Your task to perform on an android device: show emergency info Image 0: 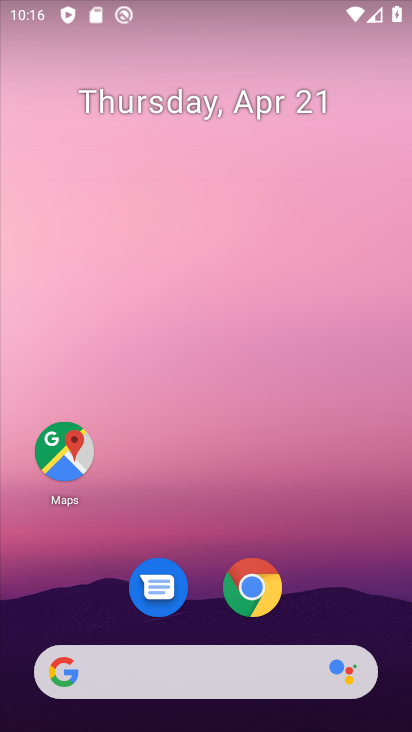
Step 0: drag from (217, 676) to (163, 97)
Your task to perform on an android device: show emergency info Image 1: 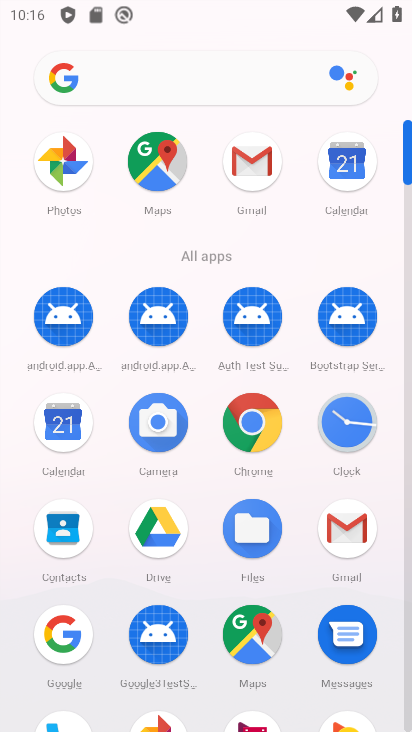
Step 1: drag from (186, 556) to (155, 21)
Your task to perform on an android device: show emergency info Image 2: 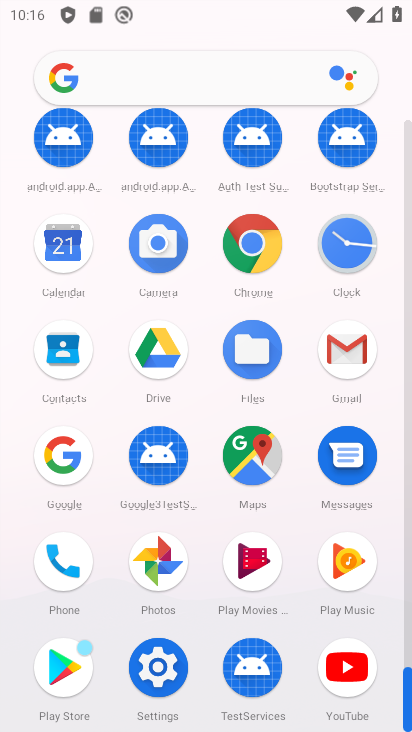
Step 2: click (154, 663)
Your task to perform on an android device: show emergency info Image 3: 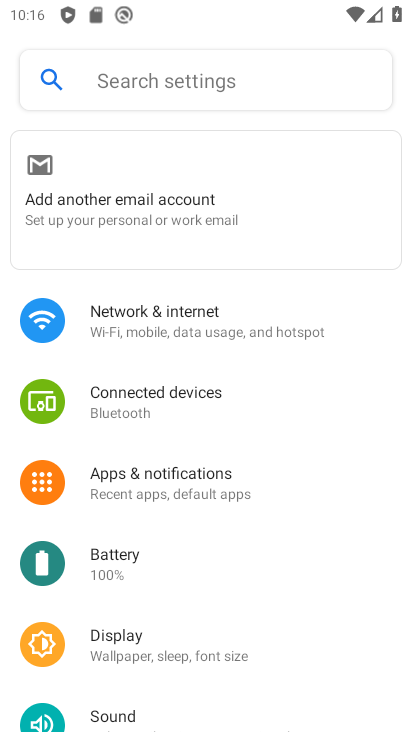
Step 3: drag from (187, 589) to (147, 36)
Your task to perform on an android device: show emergency info Image 4: 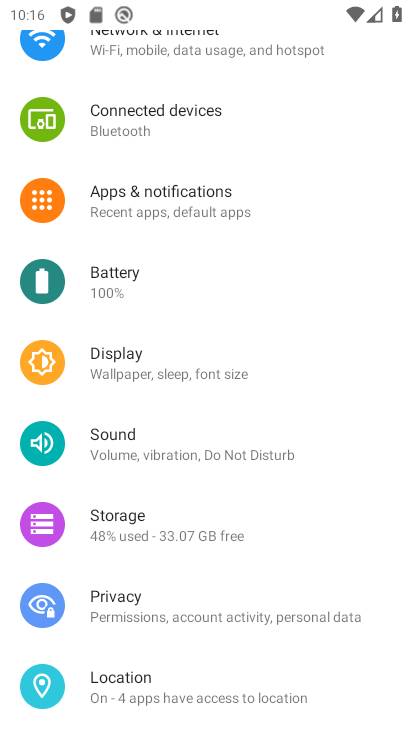
Step 4: drag from (115, 555) to (35, 0)
Your task to perform on an android device: show emergency info Image 5: 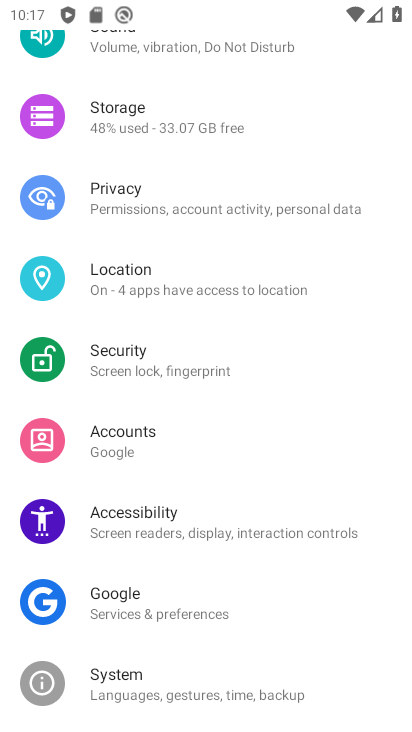
Step 5: drag from (155, 684) to (158, 146)
Your task to perform on an android device: show emergency info Image 6: 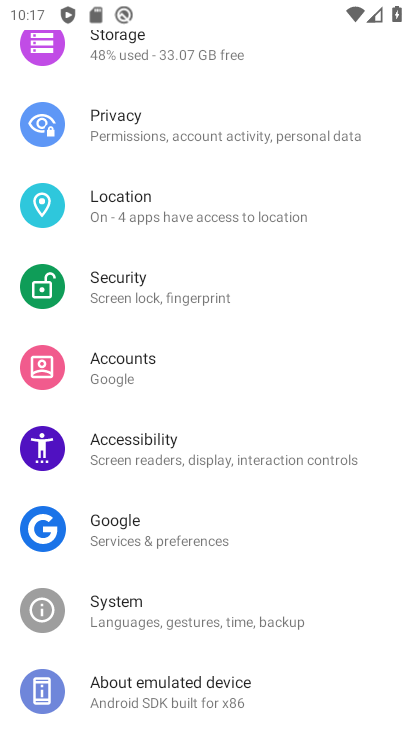
Step 6: click (130, 694)
Your task to perform on an android device: show emergency info Image 7: 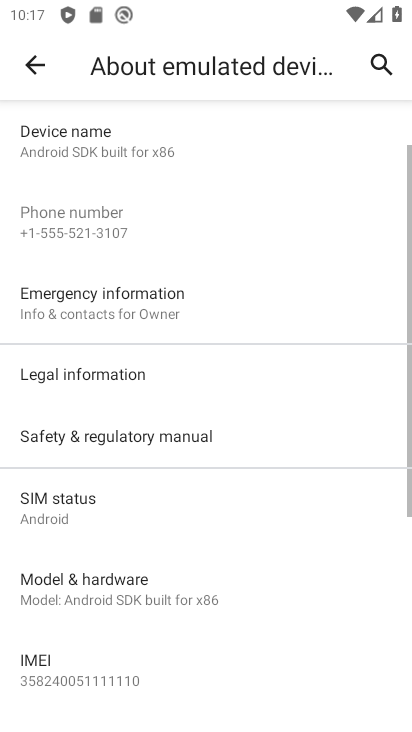
Step 7: click (154, 316)
Your task to perform on an android device: show emergency info Image 8: 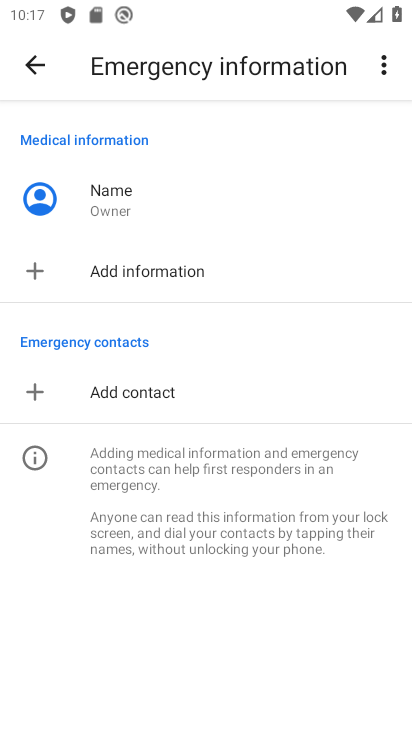
Step 8: task complete